Your task to perform on an android device: Clear the cart on walmart. Add dell xps to the cart on walmart Image 0: 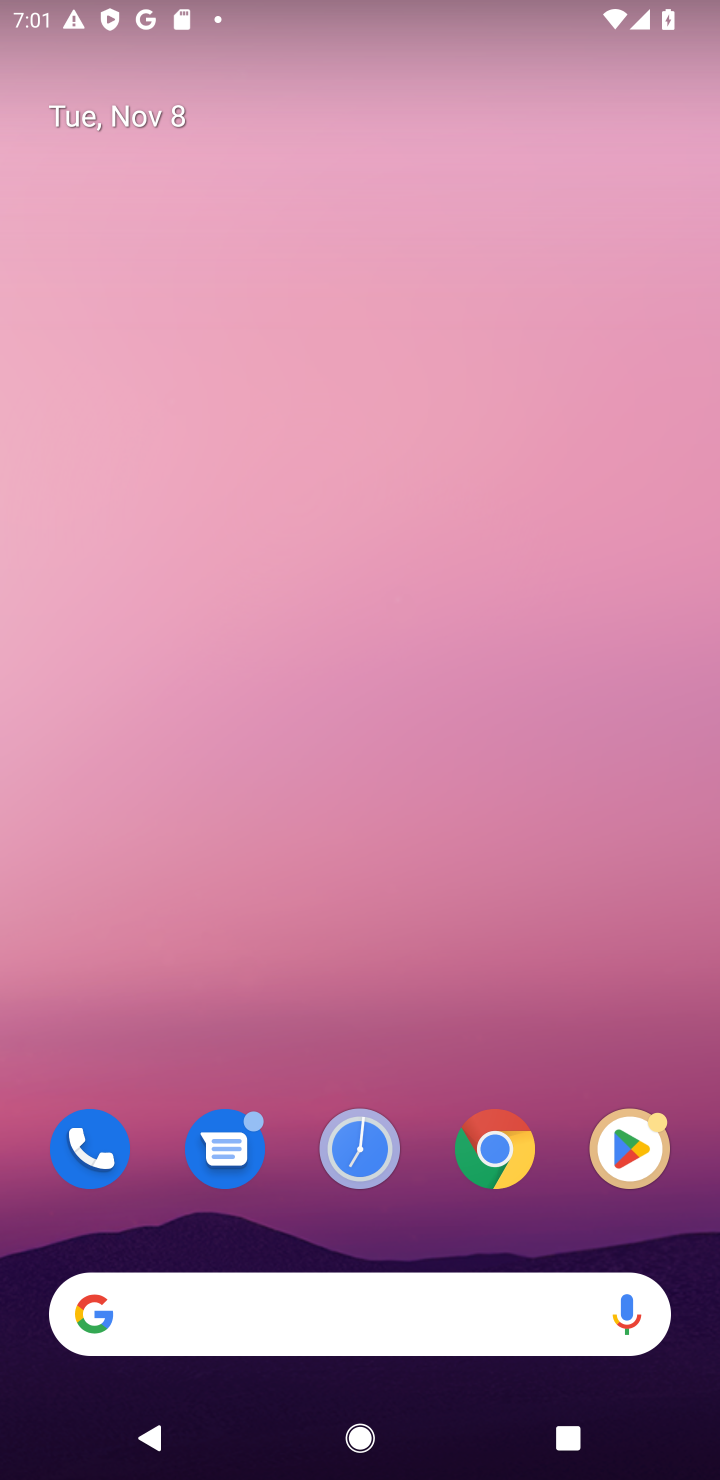
Step 0: click (495, 1151)
Your task to perform on an android device: Clear the cart on walmart. Add dell xps to the cart on walmart Image 1: 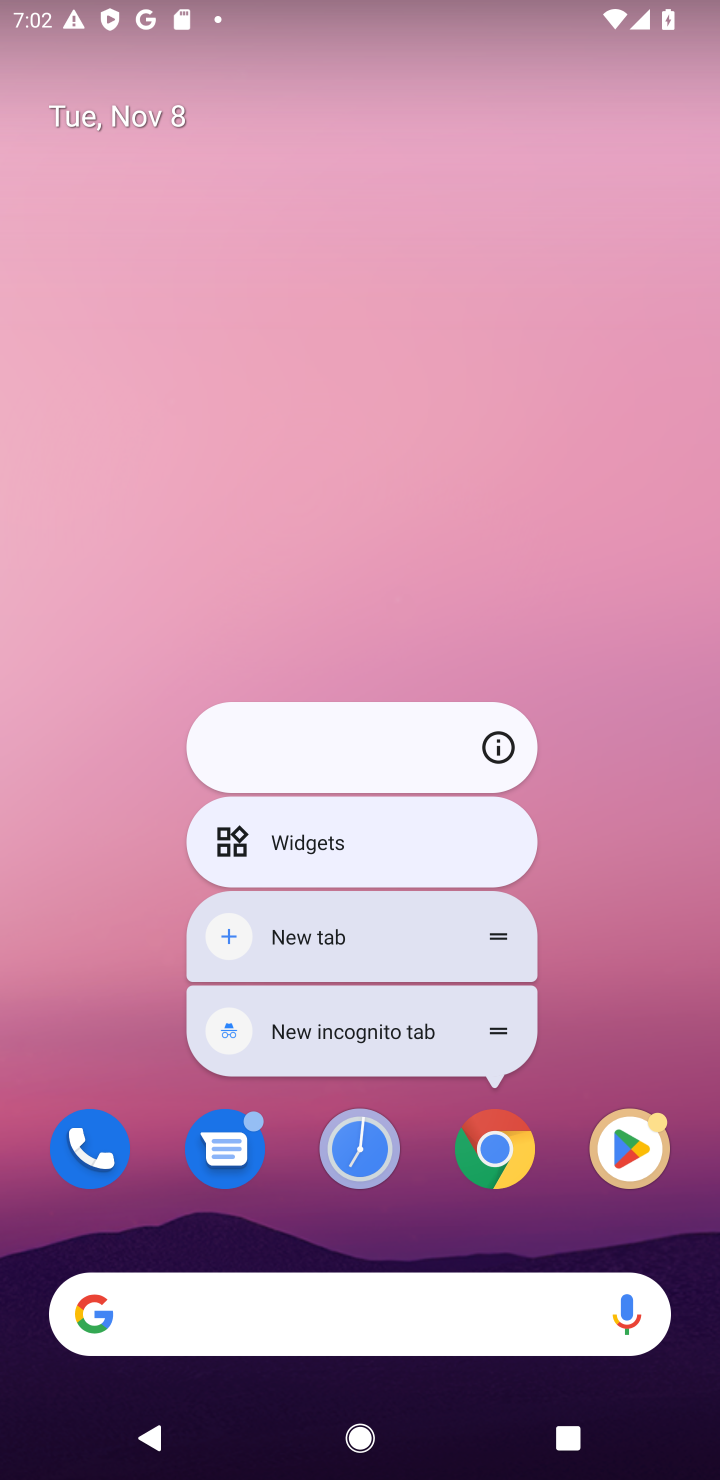
Step 1: click (495, 1151)
Your task to perform on an android device: Clear the cart on walmart. Add dell xps to the cart on walmart Image 2: 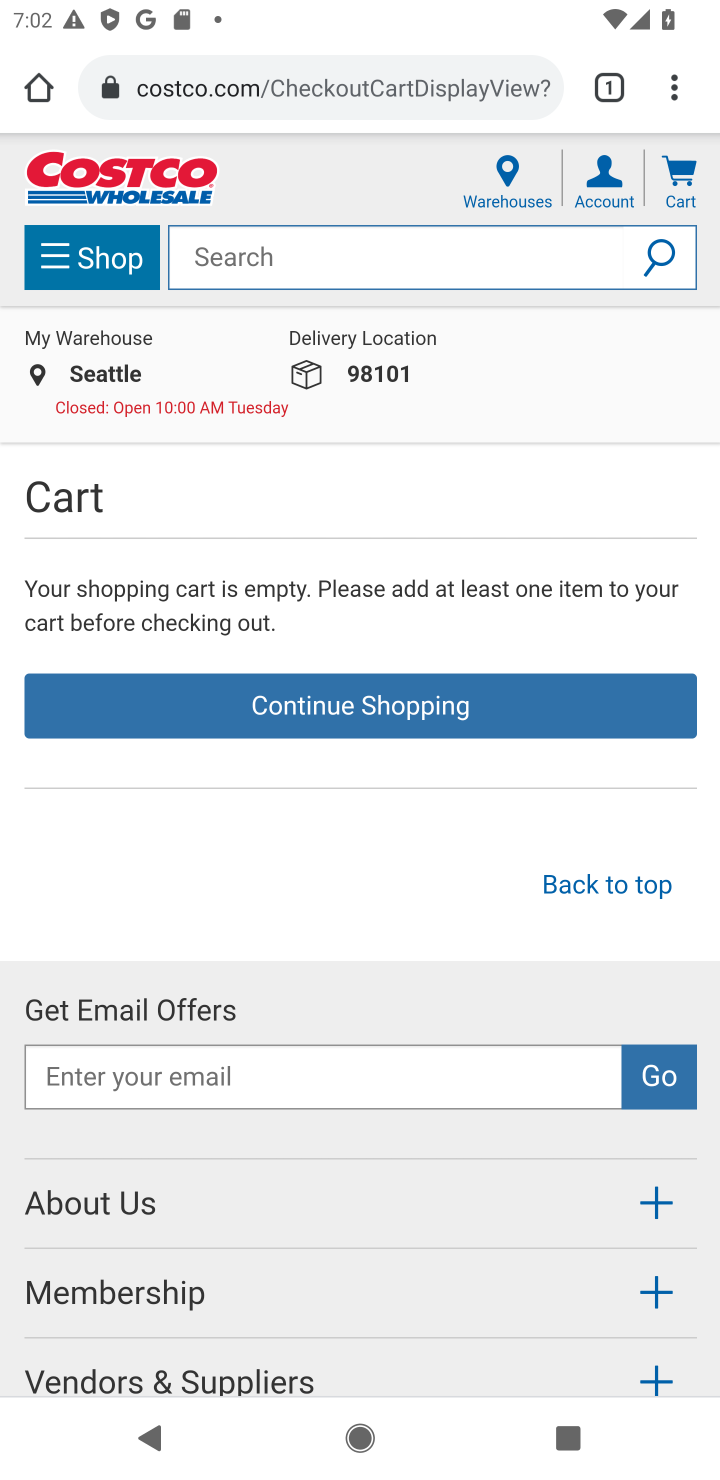
Step 2: click (404, 77)
Your task to perform on an android device: Clear the cart on walmart. Add dell xps to the cart on walmart Image 3: 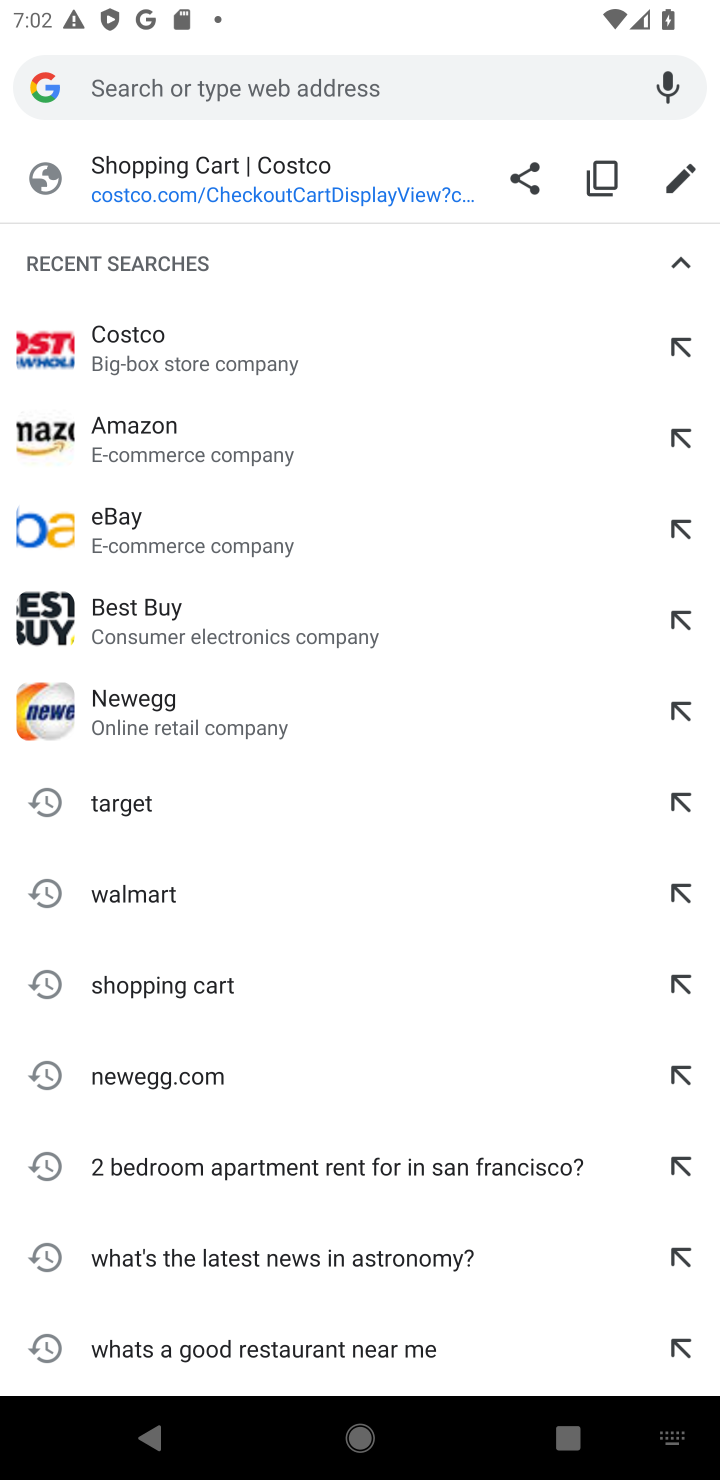
Step 3: type "walmart"
Your task to perform on an android device: Clear the cart on walmart. Add dell xps to the cart on walmart Image 4: 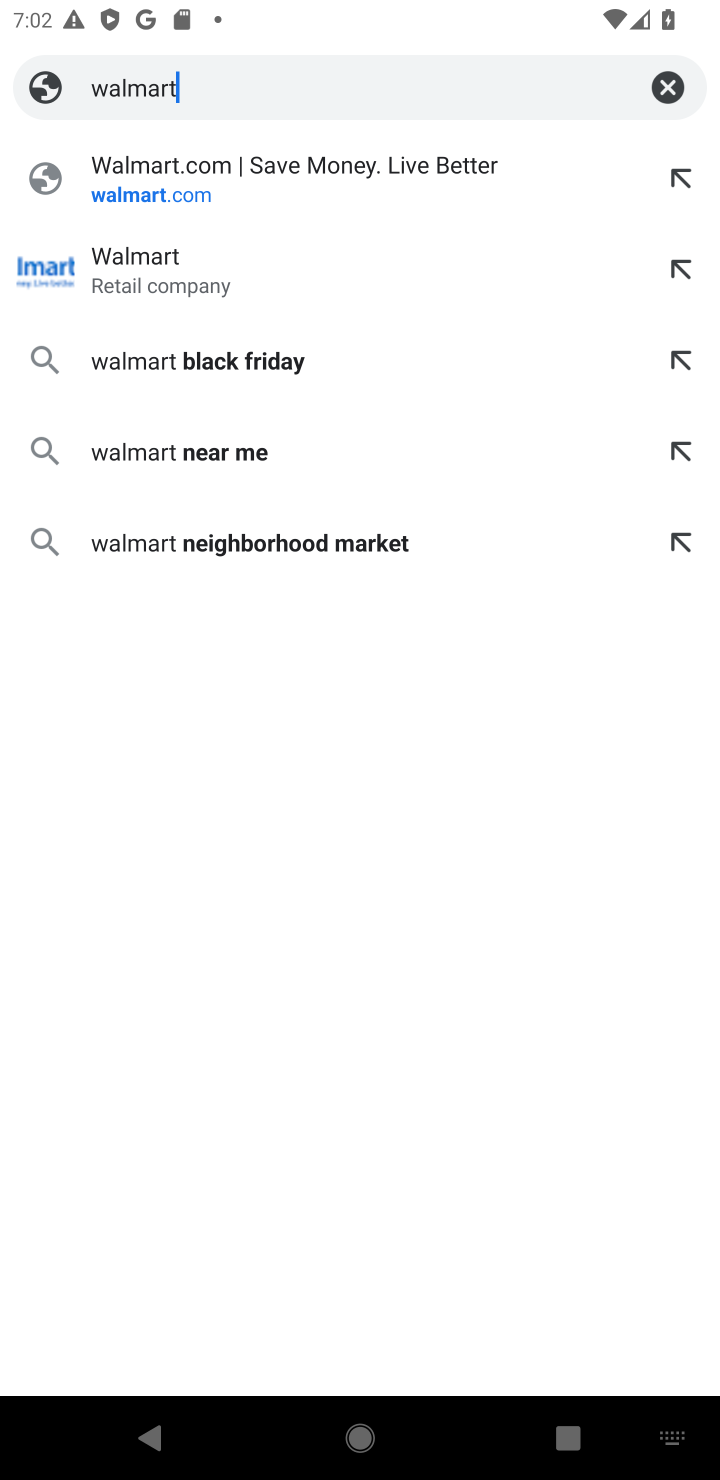
Step 4: click (159, 272)
Your task to perform on an android device: Clear the cart on walmart. Add dell xps to the cart on walmart Image 5: 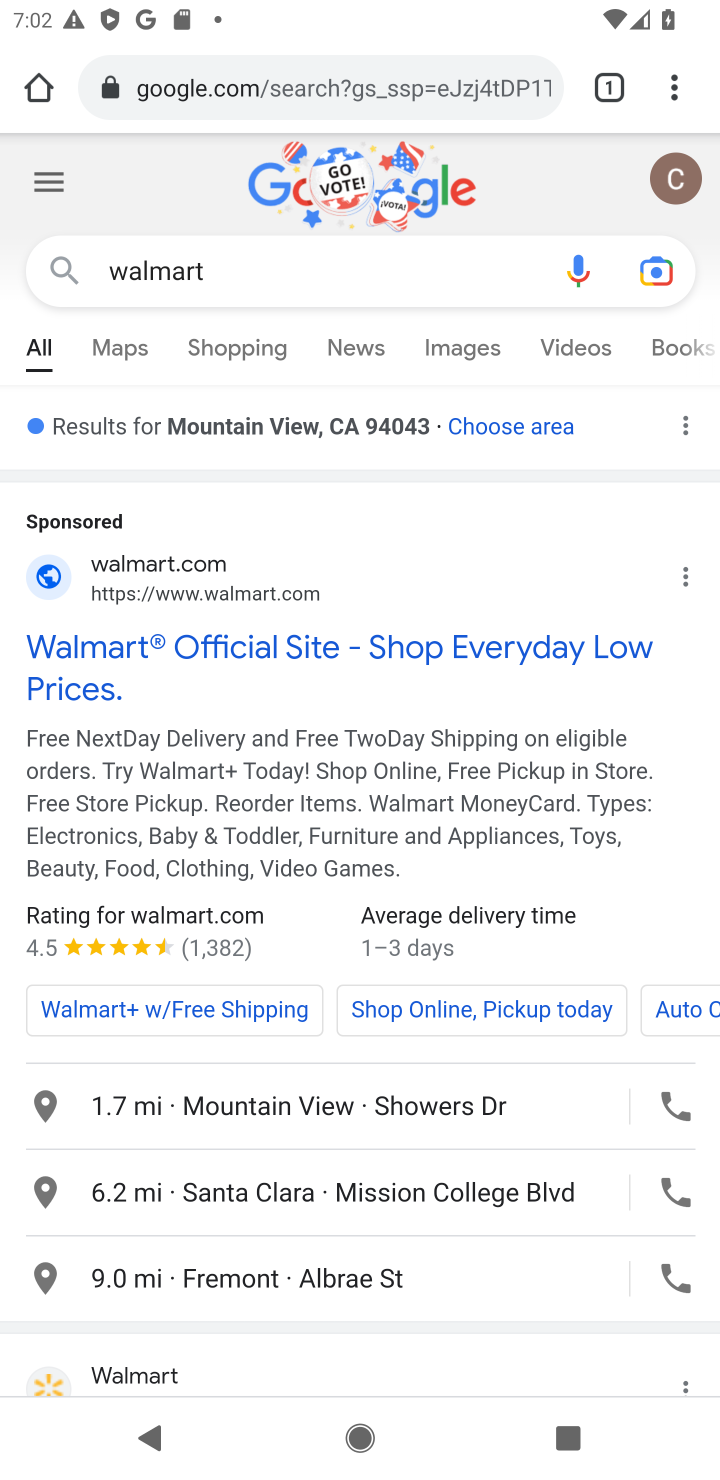
Step 5: click (212, 593)
Your task to perform on an android device: Clear the cart on walmart. Add dell xps to the cart on walmart Image 6: 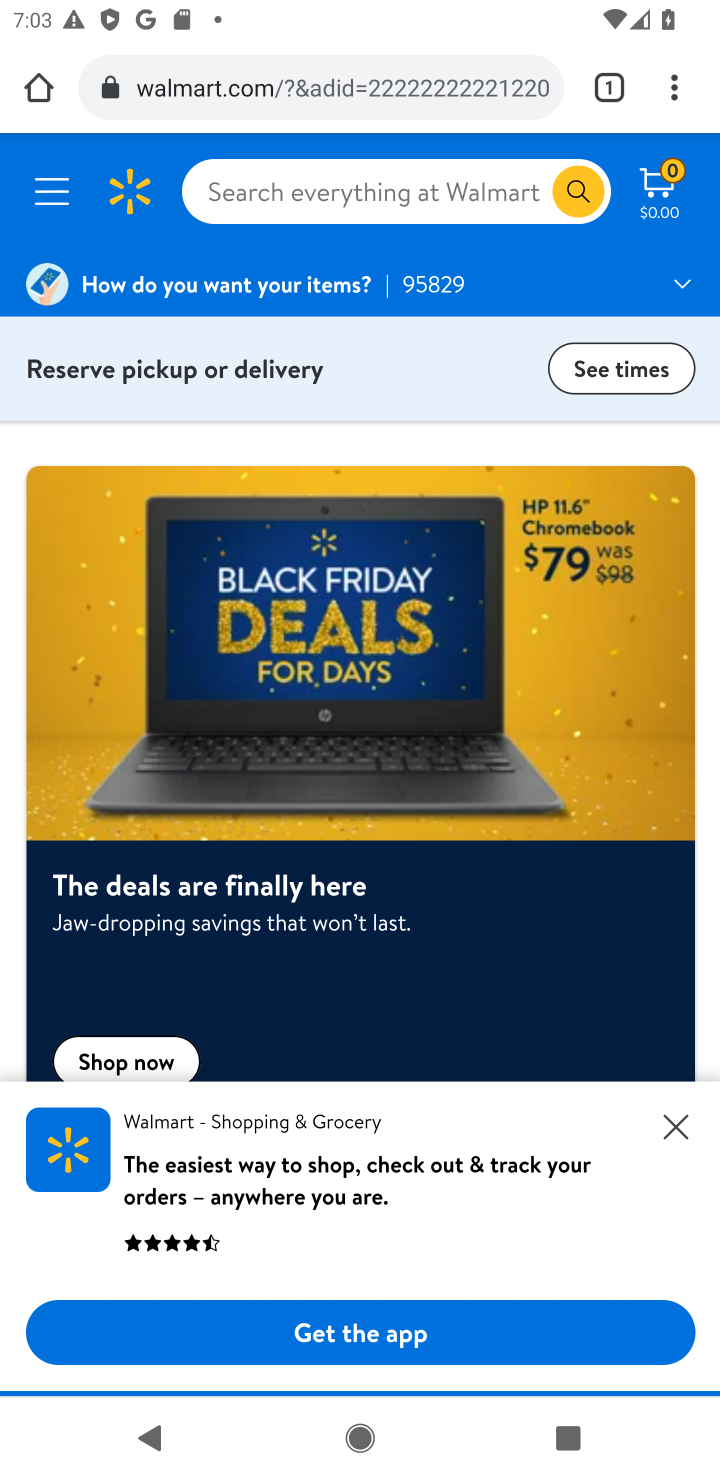
Step 6: click (658, 189)
Your task to perform on an android device: Clear the cart on walmart. Add dell xps to the cart on walmart Image 7: 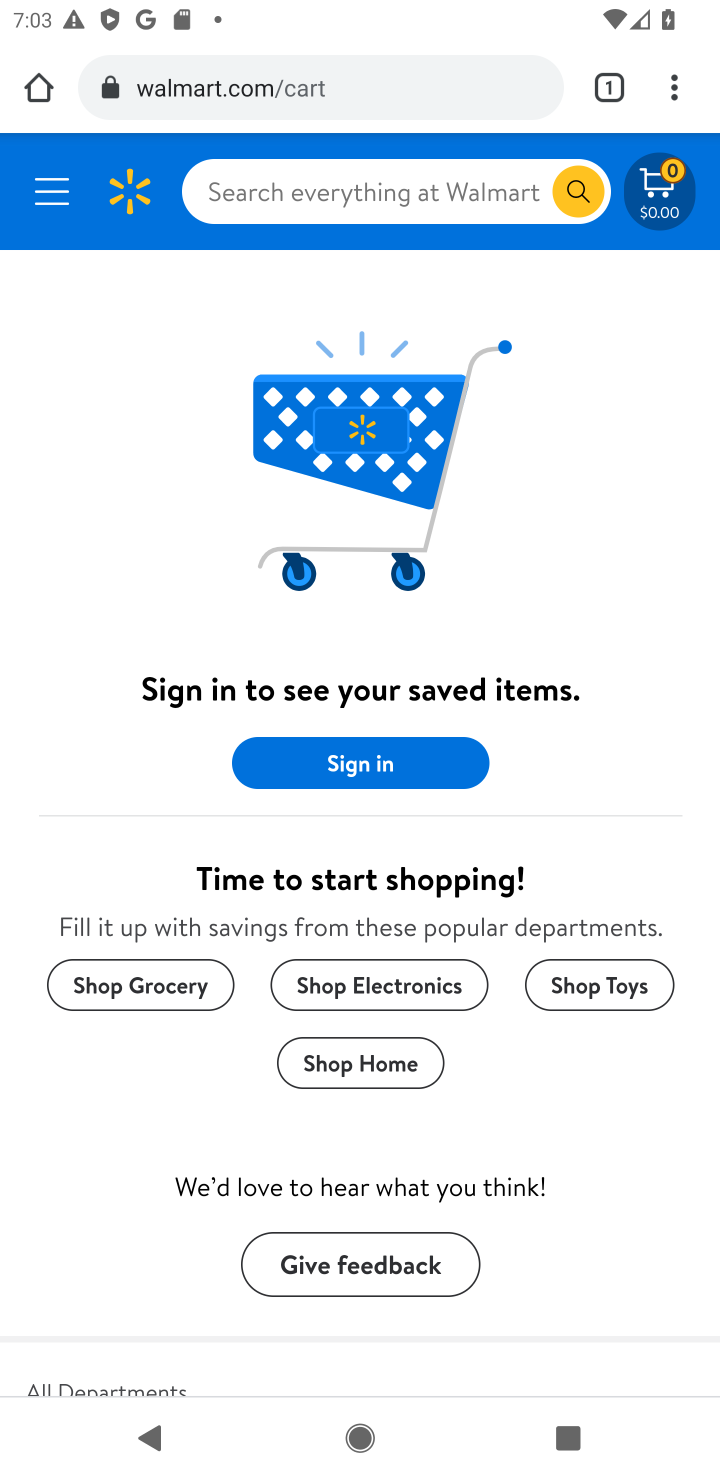
Step 7: click (461, 186)
Your task to perform on an android device: Clear the cart on walmart. Add dell xps to the cart on walmart Image 8: 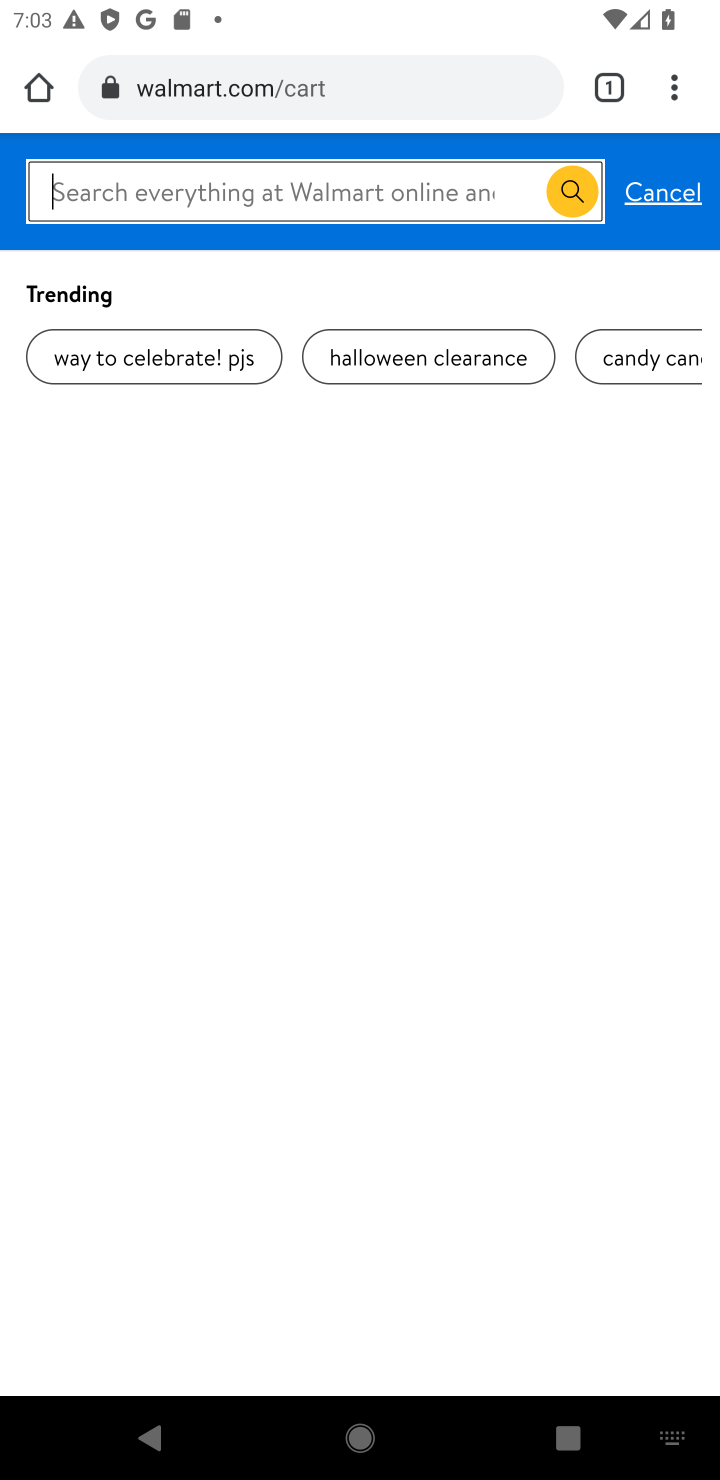
Step 8: type "dell xps"
Your task to perform on an android device: Clear the cart on walmart. Add dell xps to the cart on walmart Image 9: 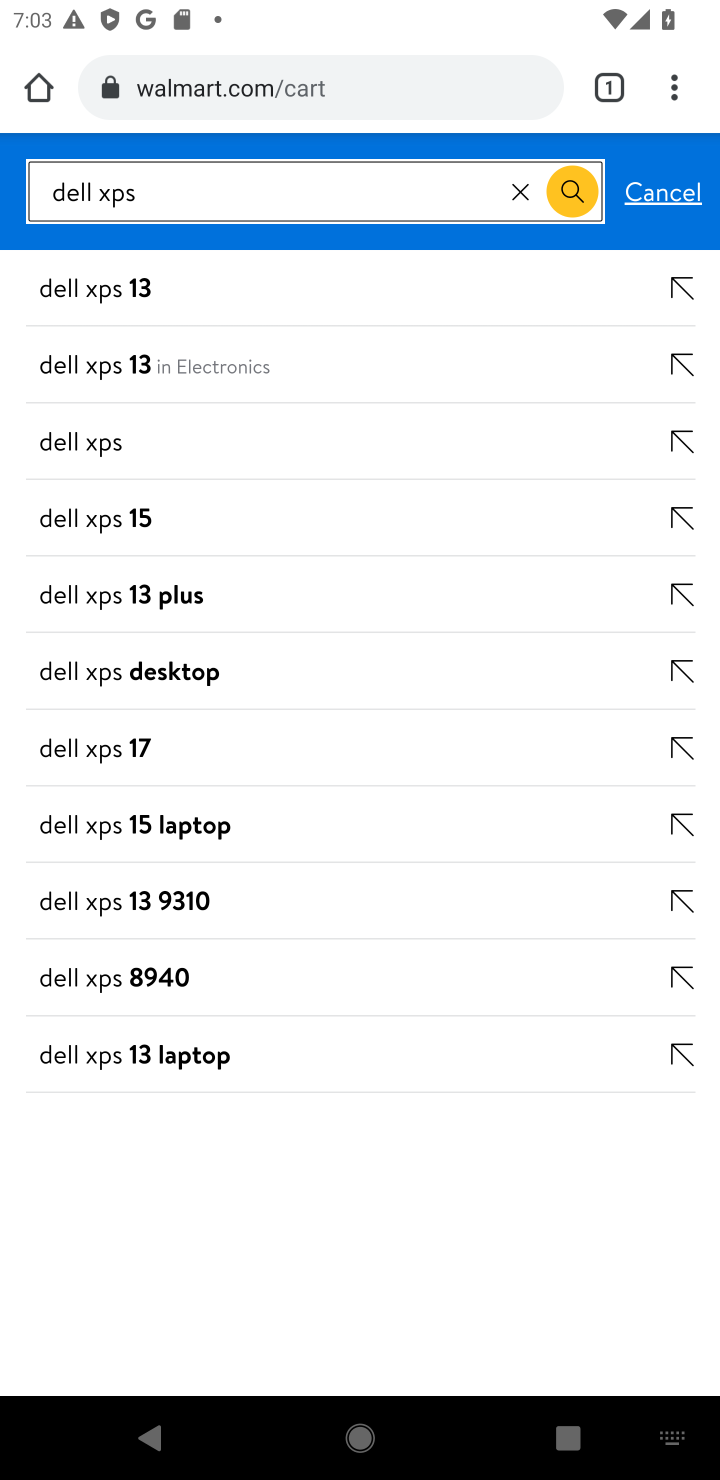
Step 9: click (94, 433)
Your task to perform on an android device: Clear the cart on walmart. Add dell xps to the cart on walmart Image 10: 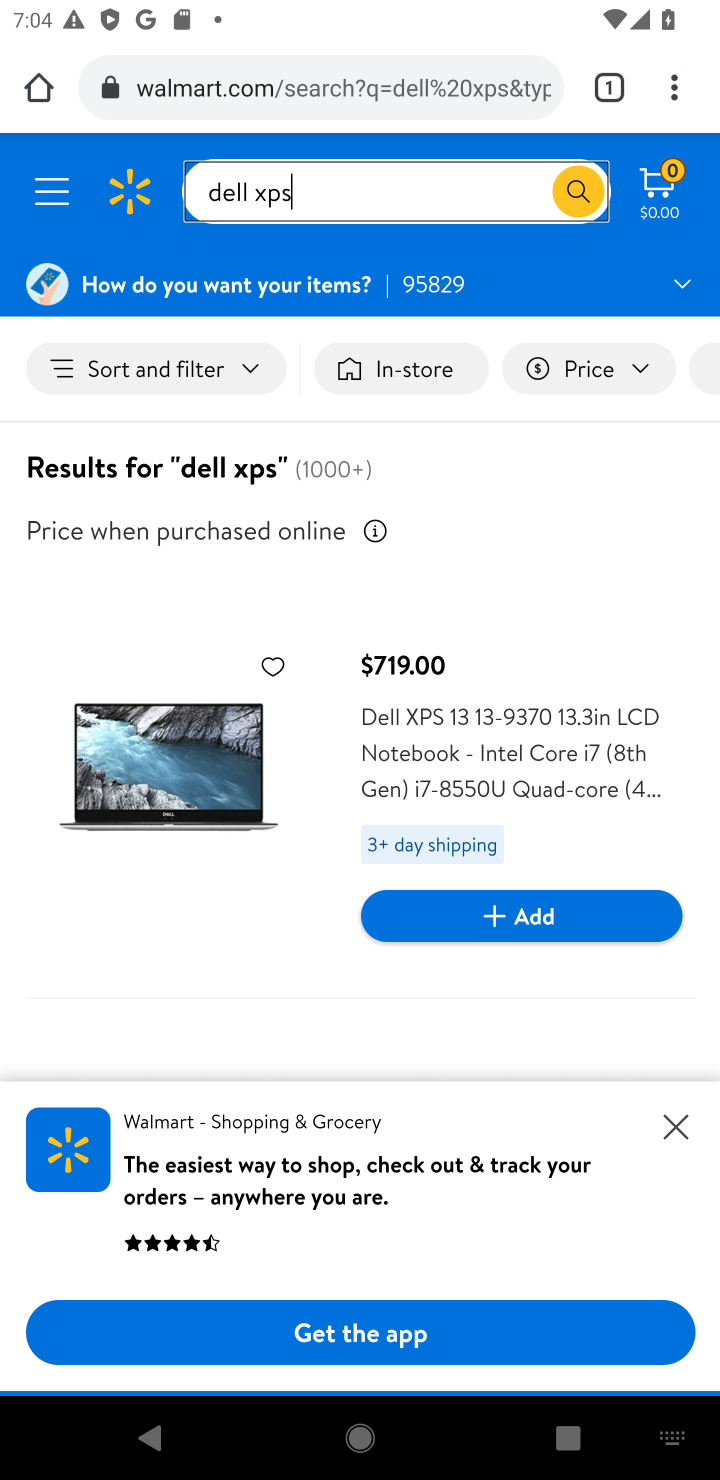
Step 10: click (183, 782)
Your task to perform on an android device: Clear the cart on walmart. Add dell xps to the cart on walmart Image 11: 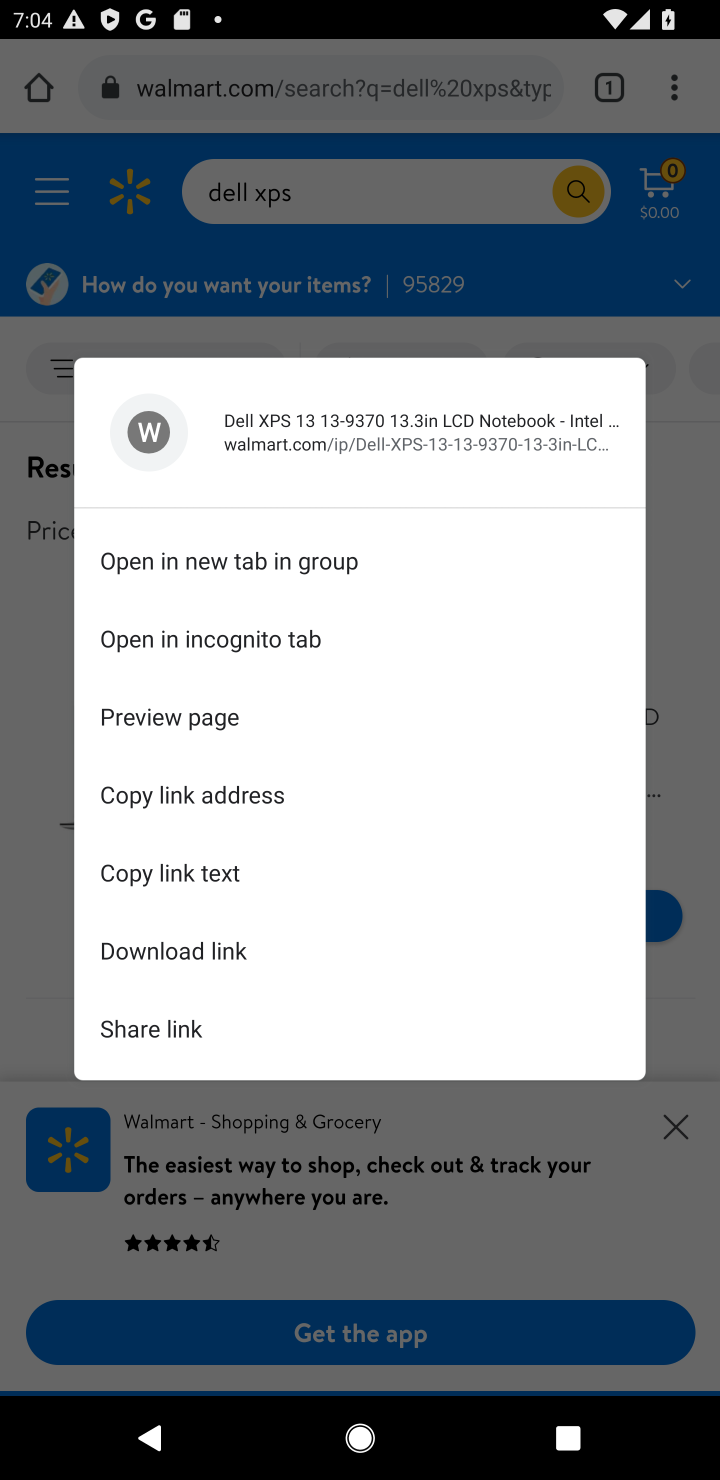
Step 11: click (497, 1174)
Your task to perform on an android device: Clear the cart on walmart. Add dell xps to the cart on walmart Image 12: 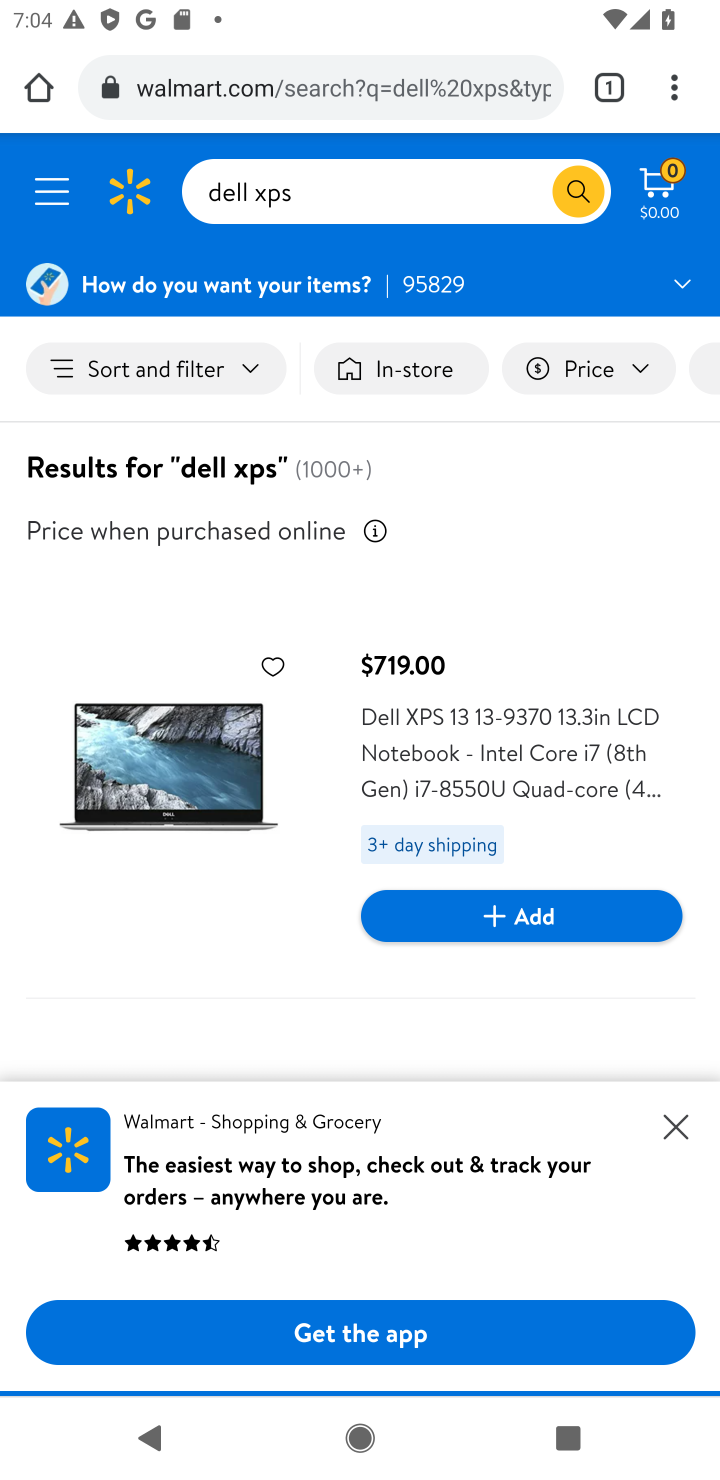
Step 12: click (127, 769)
Your task to perform on an android device: Clear the cart on walmart. Add dell xps to the cart on walmart Image 13: 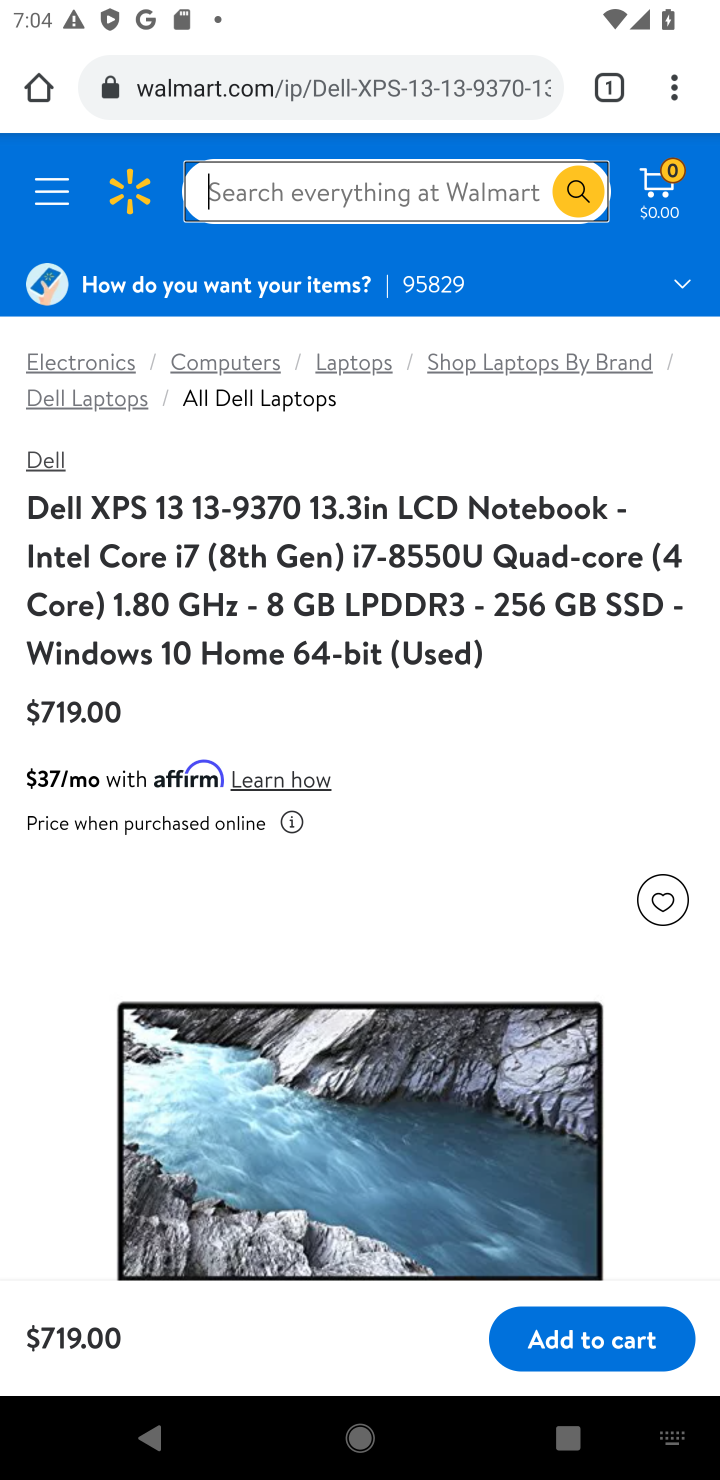
Step 13: click (633, 1335)
Your task to perform on an android device: Clear the cart on walmart. Add dell xps to the cart on walmart Image 14: 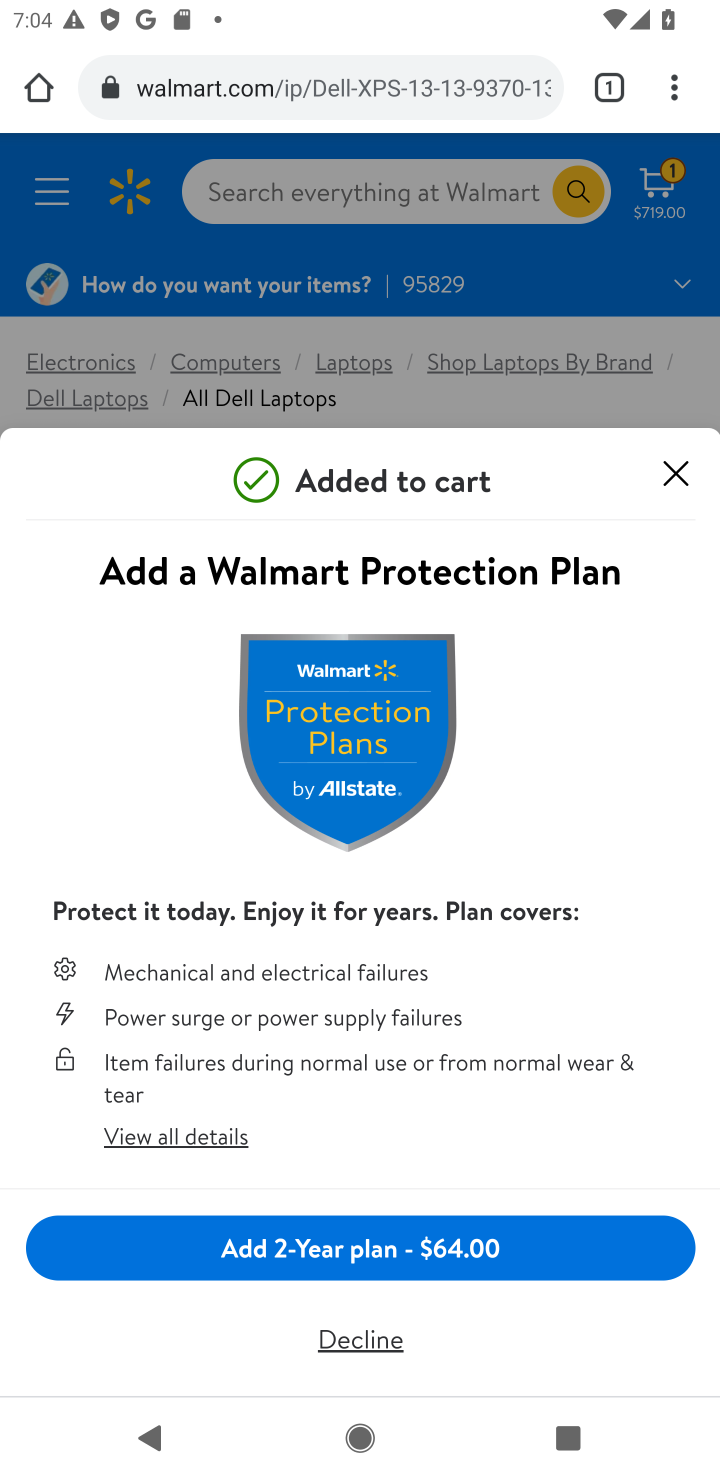
Step 14: click (673, 474)
Your task to perform on an android device: Clear the cart on walmart. Add dell xps to the cart on walmart Image 15: 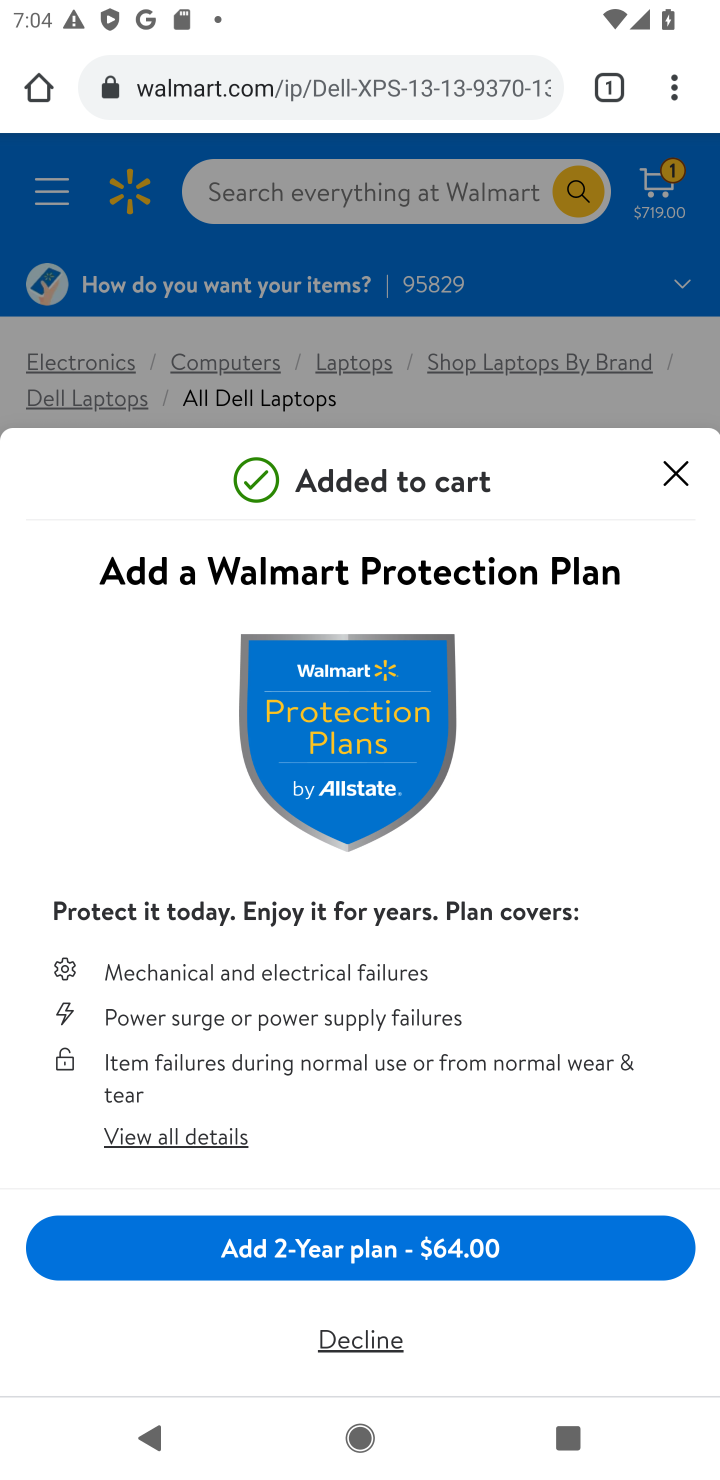
Step 15: click (673, 474)
Your task to perform on an android device: Clear the cart on walmart. Add dell xps to the cart on walmart Image 16: 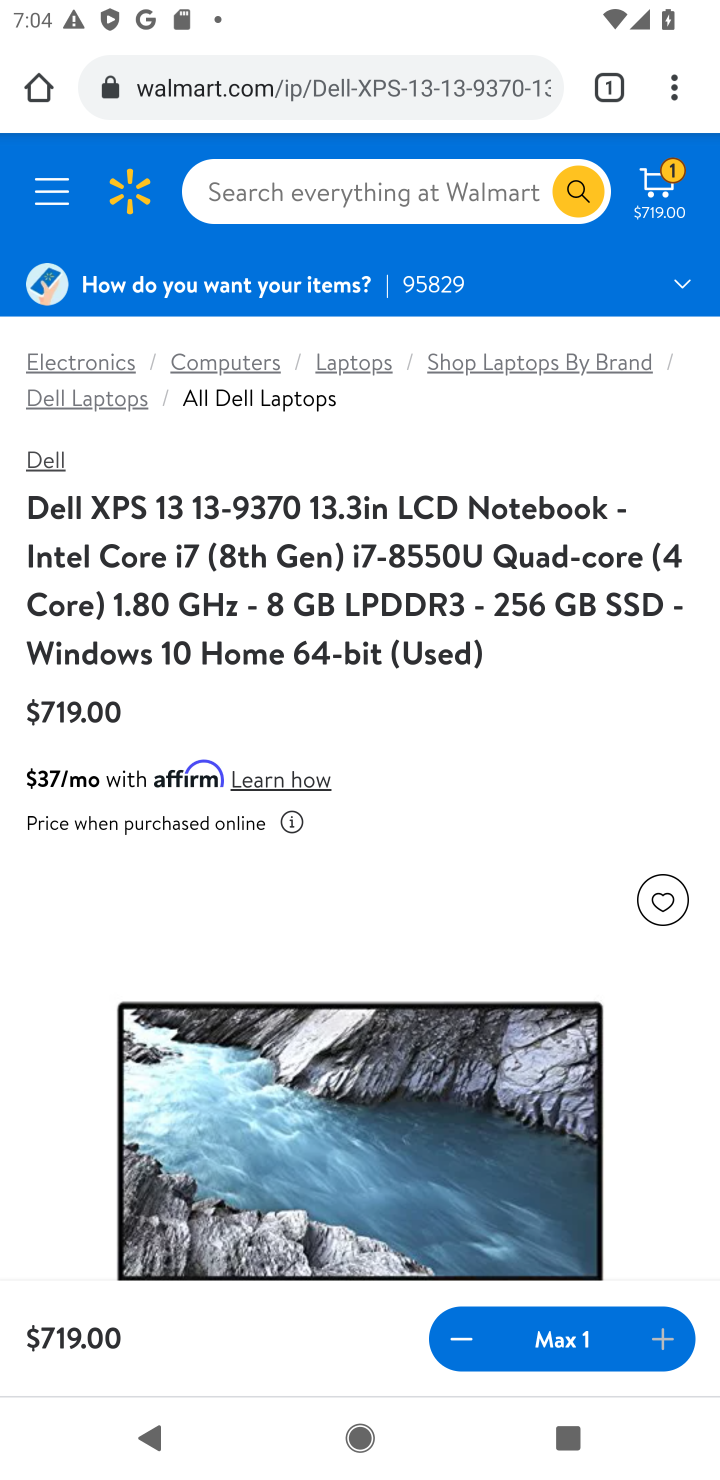
Step 16: task complete